Your task to perform on an android device: turn on translation in the chrome app Image 0: 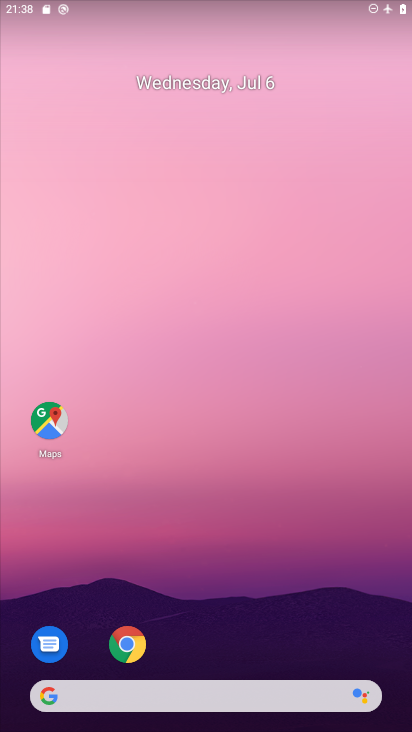
Step 0: click (118, 650)
Your task to perform on an android device: turn on translation in the chrome app Image 1: 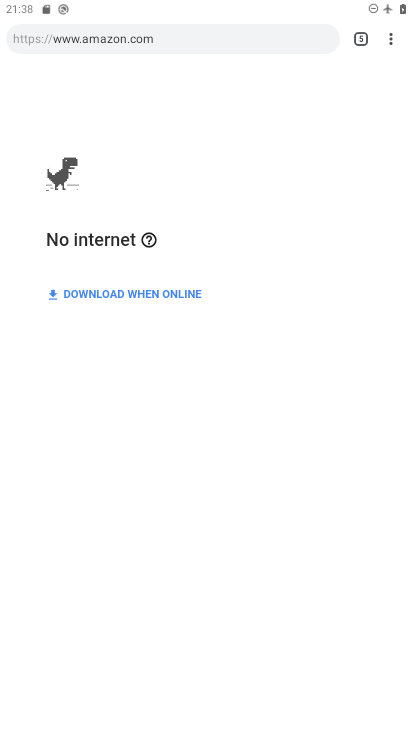
Step 1: click (386, 41)
Your task to perform on an android device: turn on translation in the chrome app Image 2: 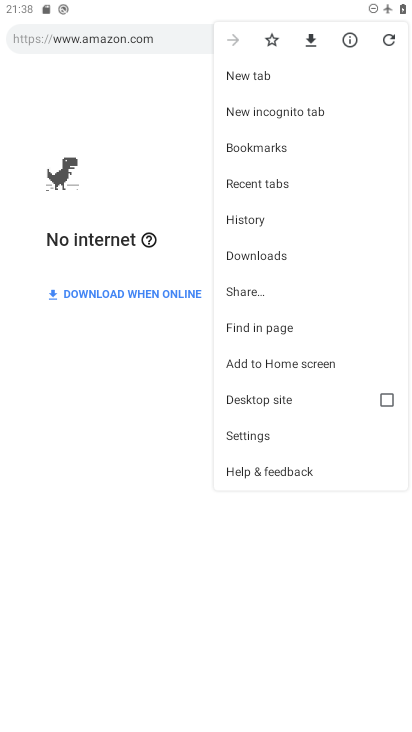
Step 2: click (283, 429)
Your task to perform on an android device: turn on translation in the chrome app Image 3: 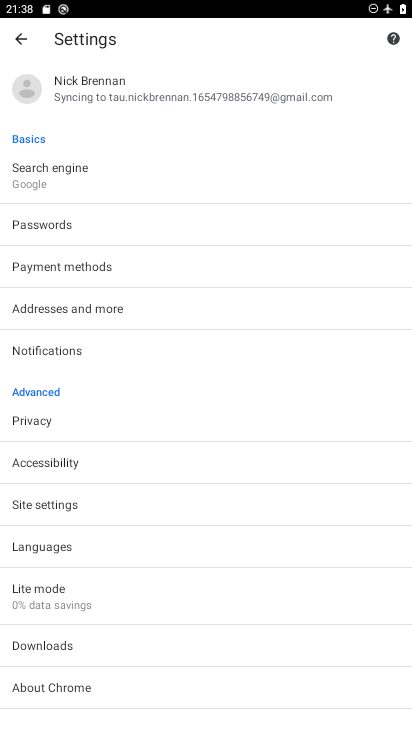
Step 3: click (126, 552)
Your task to perform on an android device: turn on translation in the chrome app Image 4: 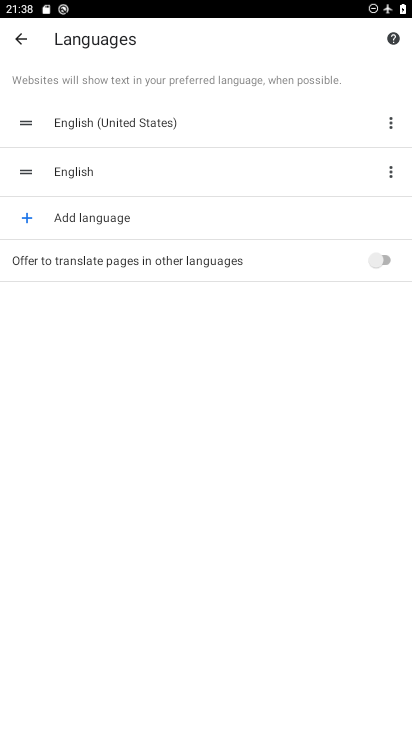
Step 4: click (382, 263)
Your task to perform on an android device: turn on translation in the chrome app Image 5: 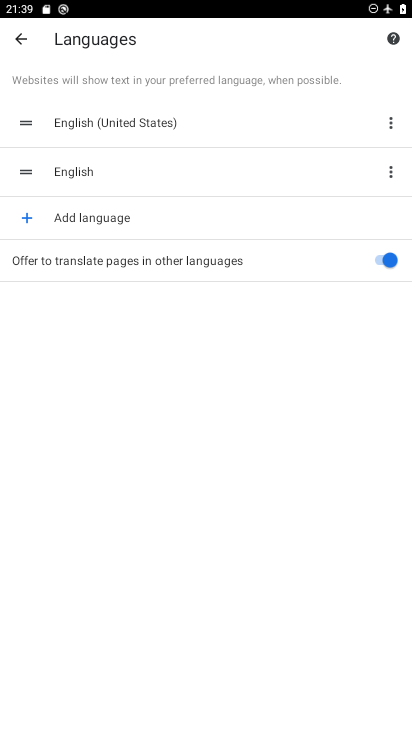
Step 5: task complete